Your task to perform on an android device: Go to CNN.com Image 0: 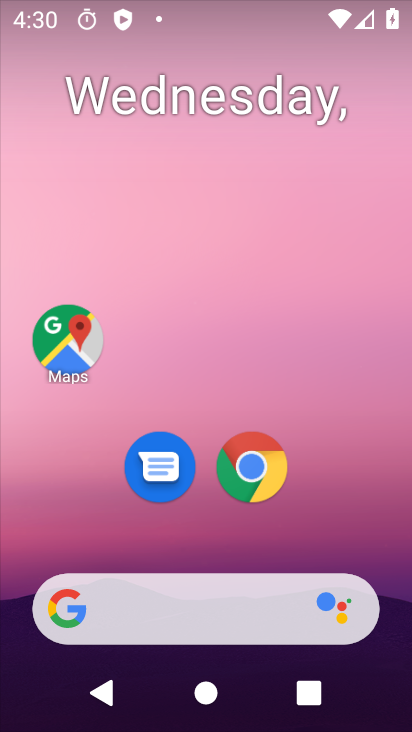
Step 0: click (254, 468)
Your task to perform on an android device: Go to CNN.com Image 1: 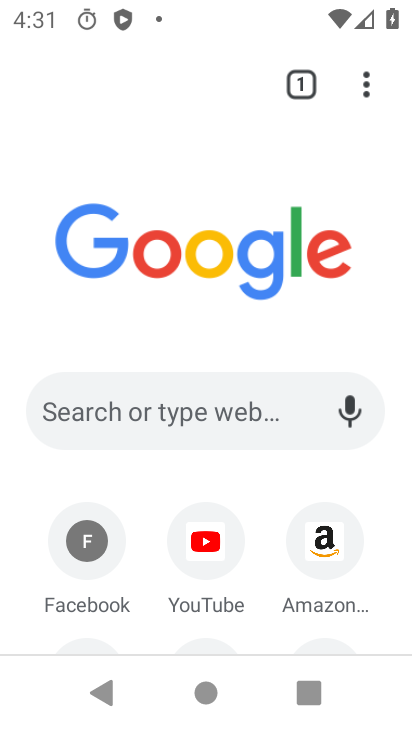
Step 1: click (257, 429)
Your task to perform on an android device: Go to CNN.com Image 2: 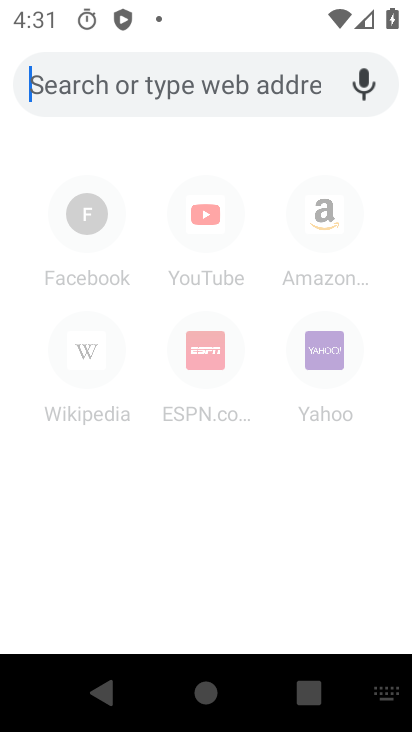
Step 2: type "CNN.com"
Your task to perform on an android device: Go to CNN.com Image 3: 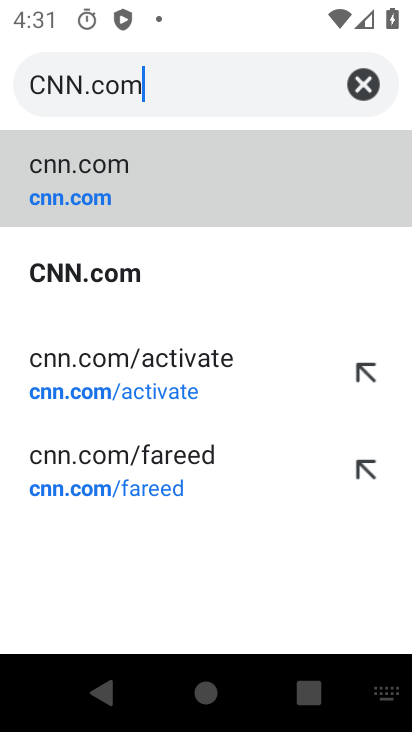
Step 3: click (89, 274)
Your task to perform on an android device: Go to CNN.com Image 4: 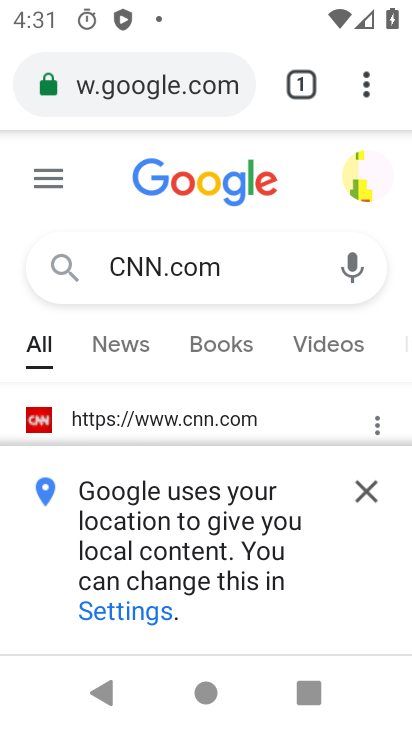
Step 4: task complete